Your task to perform on an android device: Search for vegetarian restaurants on Maps Image 0: 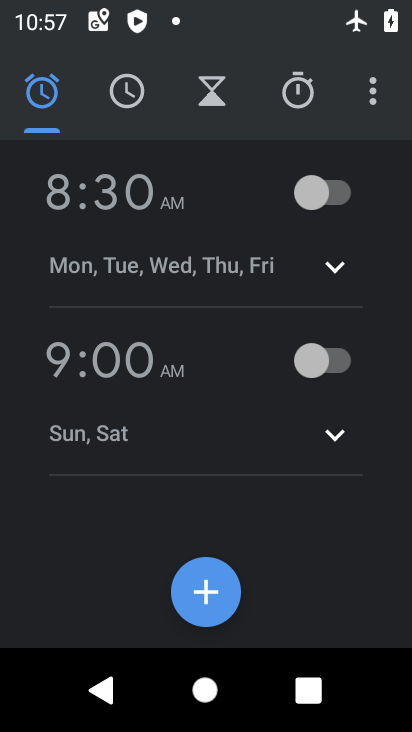
Step 0: press home button
Your task to perform on an android device: Search for vegetarian restaurants on Maps Image 1: 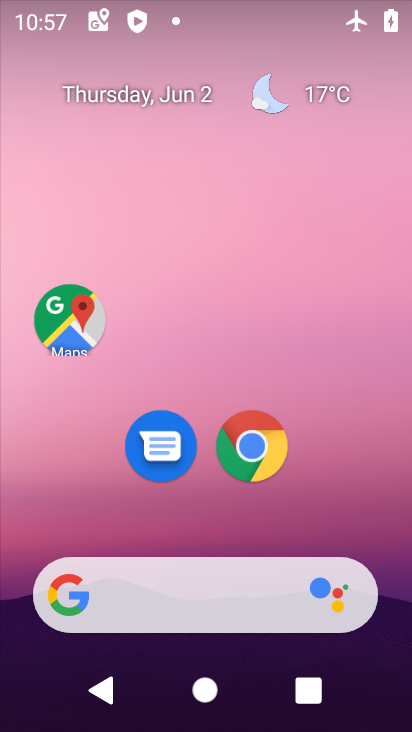
Step 1: drag from (377, 531) to (364, 192)
Your task to perform on an android device: Search for vegetarian restaurants on Maps Image 2: 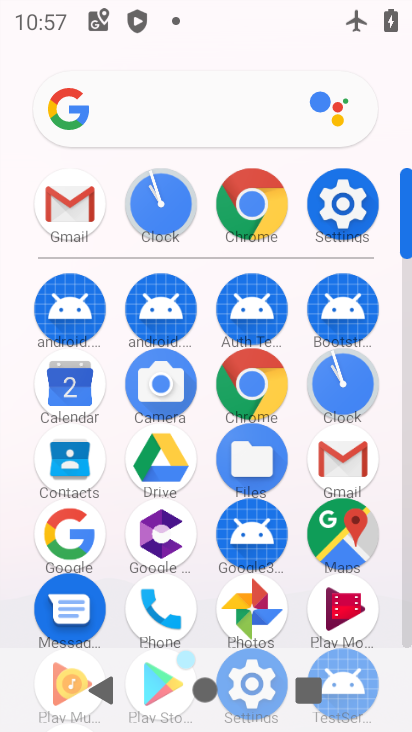
Step 2: click (360, 535)
Your task to perform on an android device: Search for vegetarian restaurants on Maps Image 3: 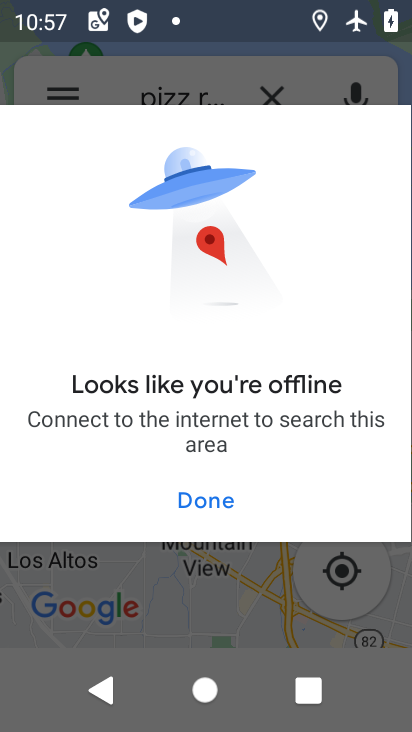
Step 3: press back button
Your task to perform on an android device: Search for vegetarian restaurants on Maps Image 4: 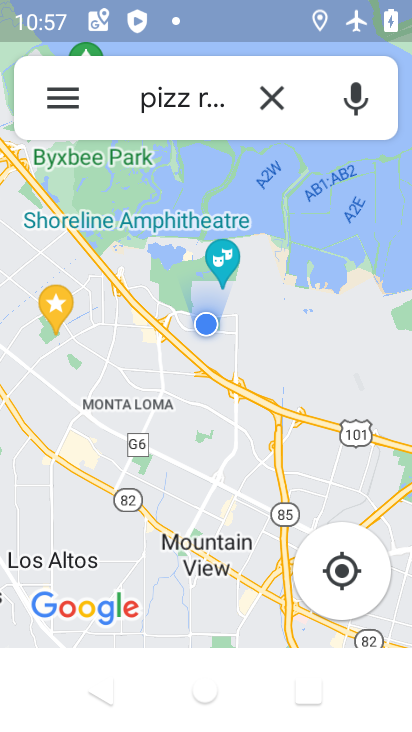
Step 4: click (273, 102)
Your task to perform on an android device: Search for vegetarian restaurants on Maps Image 5: 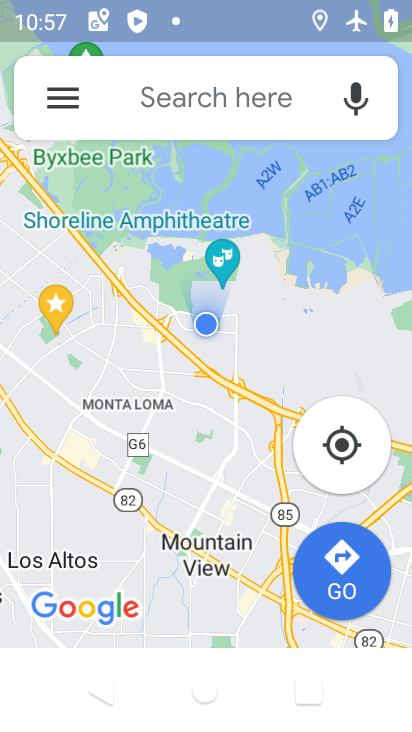
Step 5: click (273, 102)
Your task to perform on an android device: Search for vegetarian restaurants on Maps Image 6: 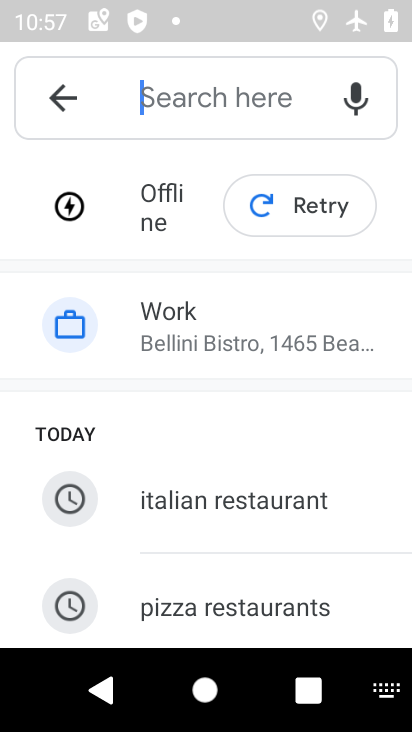
Step 6: type "vegetrain restaurants"
Your task to perform on an android device: Search for vegetarian restaurants on Maps Image 7: 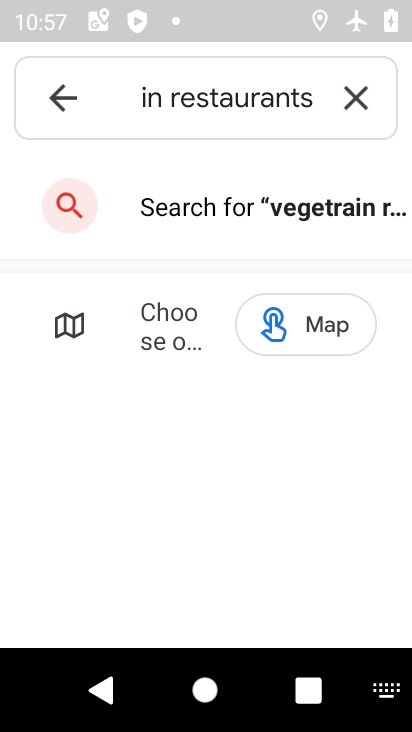
Step 7: click (304, 216)
Your task to perform on an android device: Search for vegetarian restaurants on Maps Image 8: 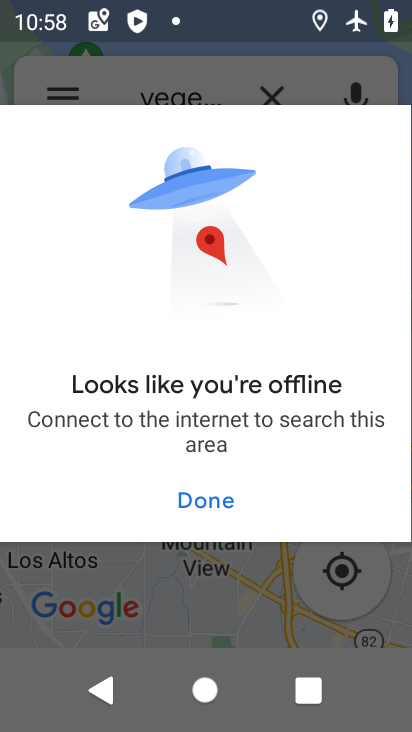
Step 8: task complete